Your task to perform on an android device: What's on my calendar today? Image 0: 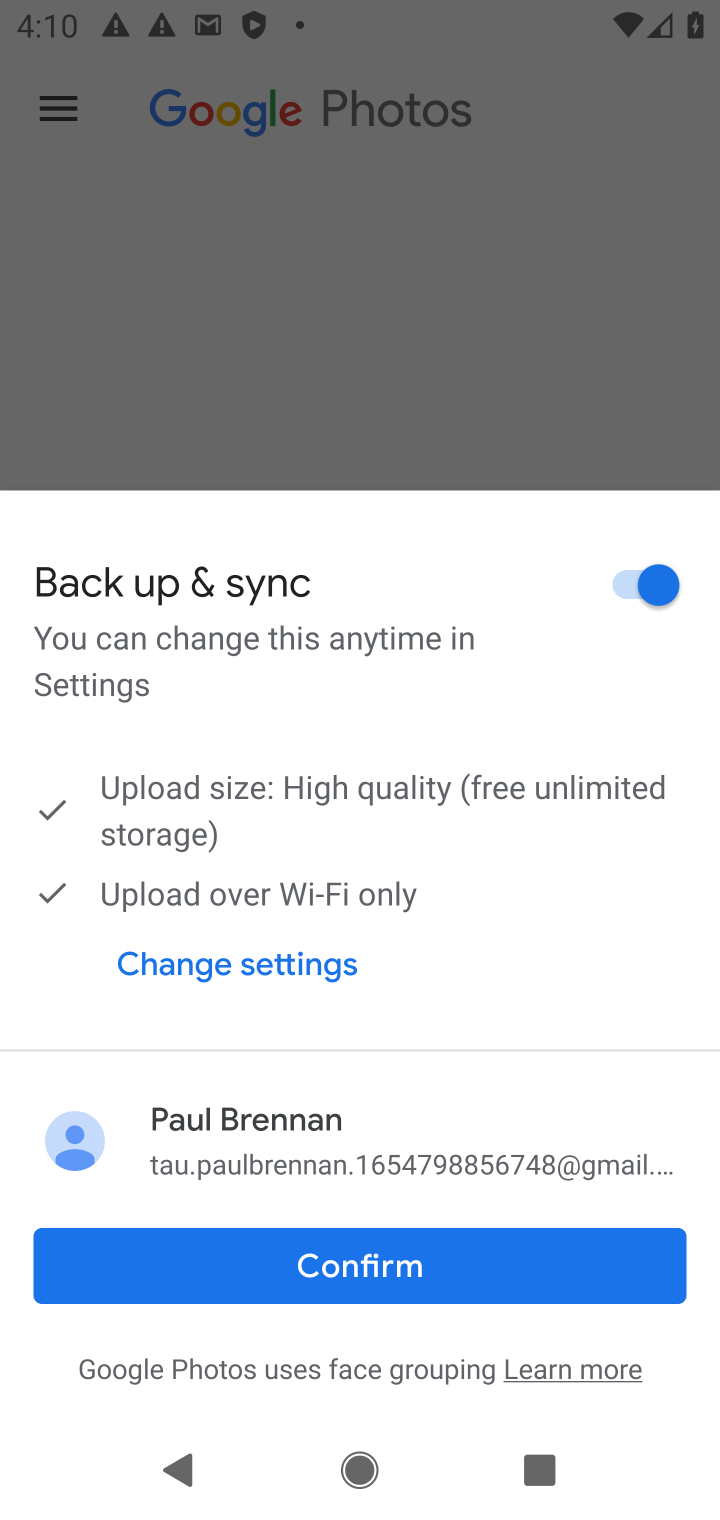
Step 0: press home button
Your task to perform on an android device: What's on my calendar today? Image 1: 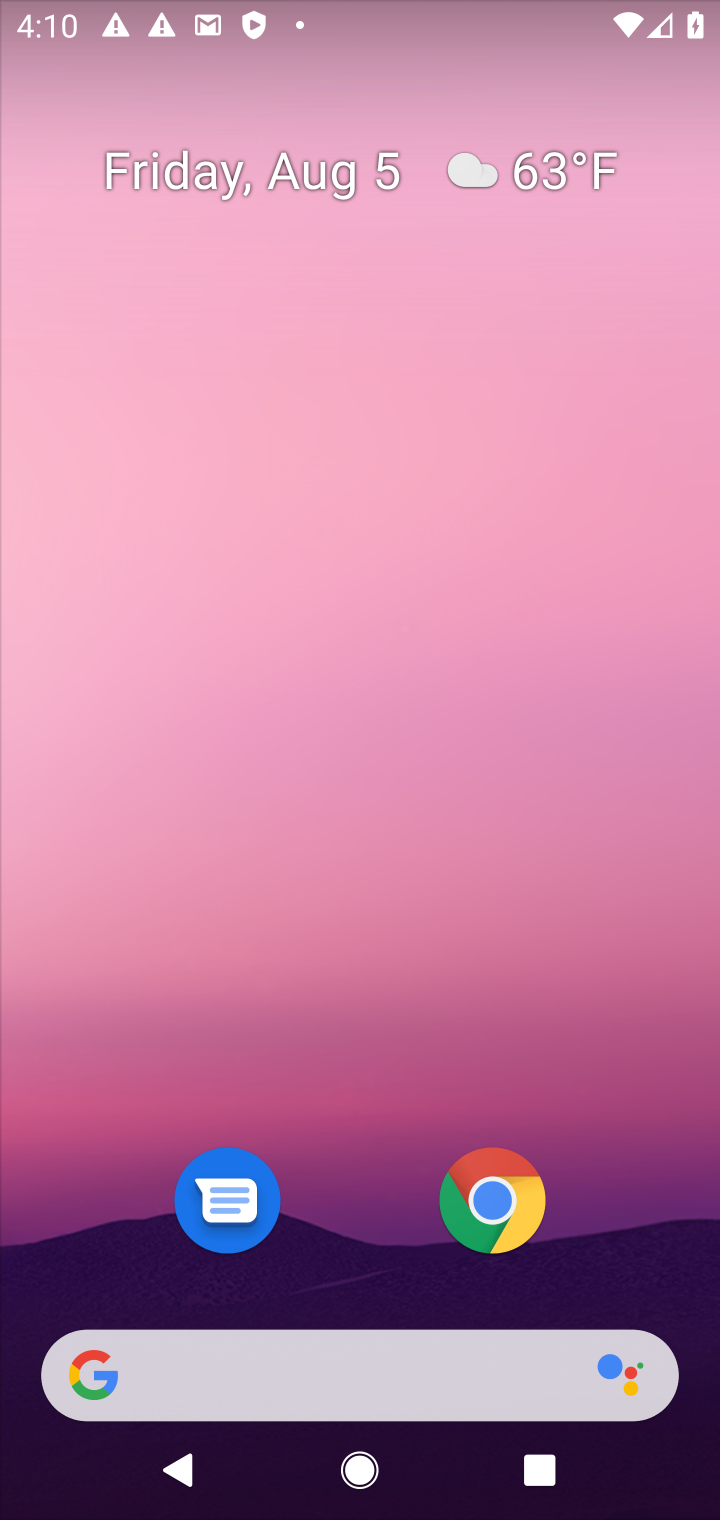
Step 1: drag from (631, 1279) to (488, 376)
Your task to perform on an android device: What's on my calendar today? Image 2: 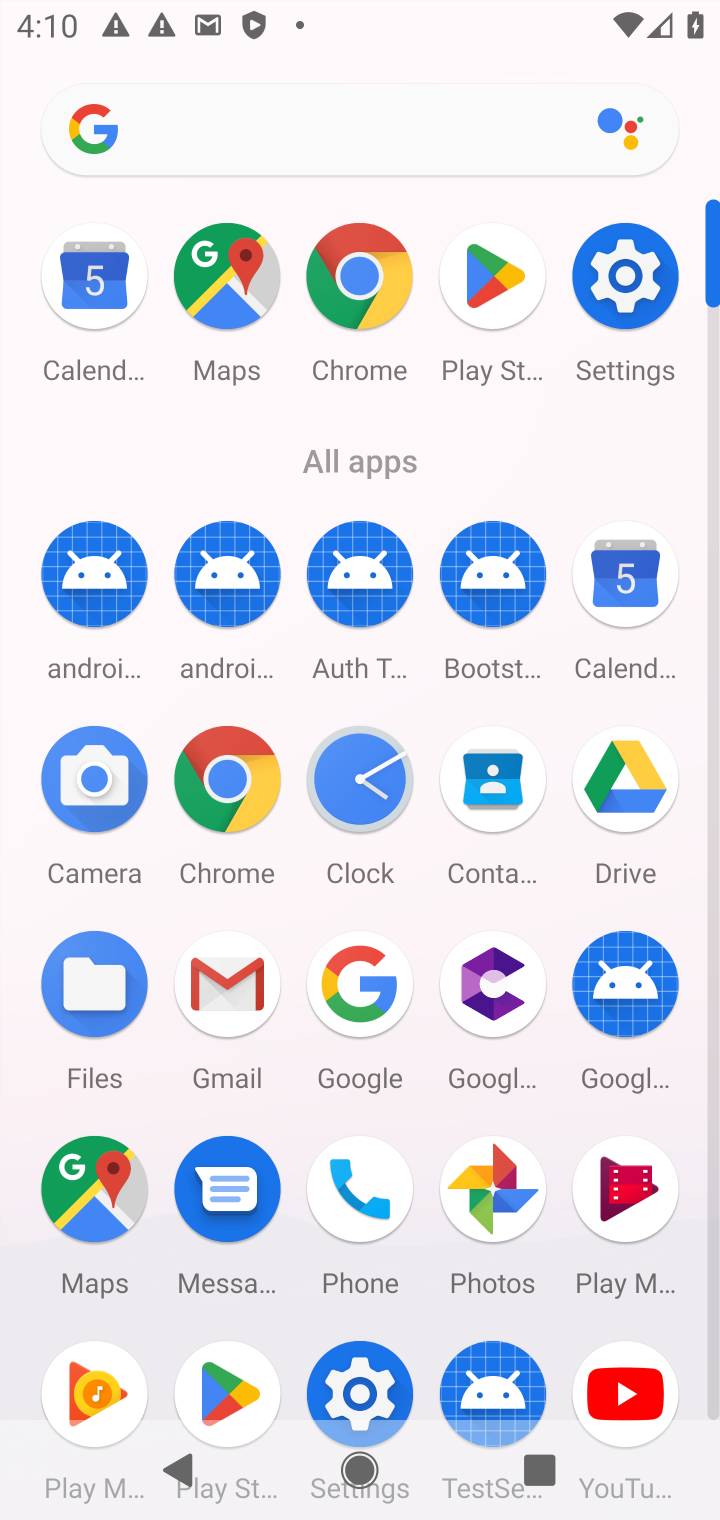
Step 2: click (627, 608)
Your task to perform on an android device: What's on my calendar today? Image 3: 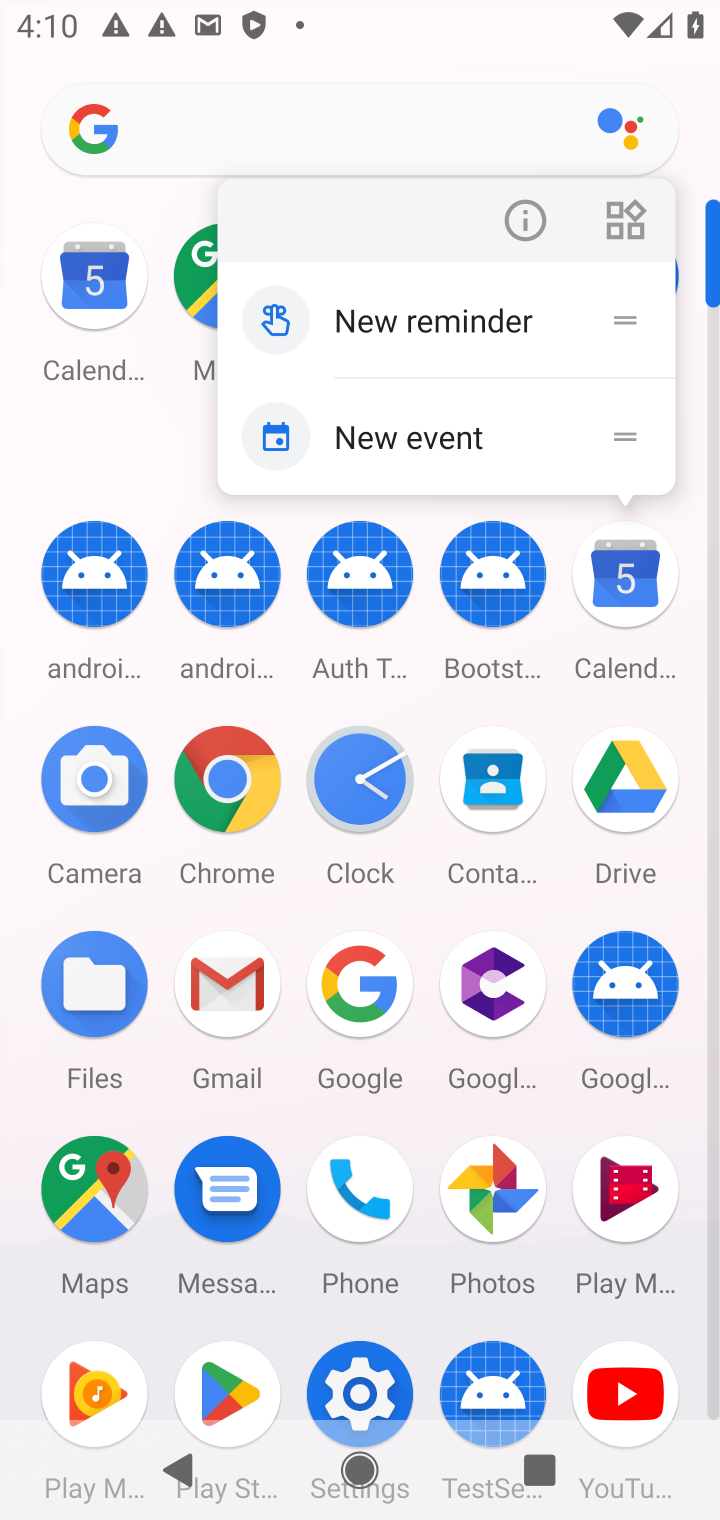
Step 3: click (635, 597)
Your task to perform on an android device: What's on my calendar today? Image 4: 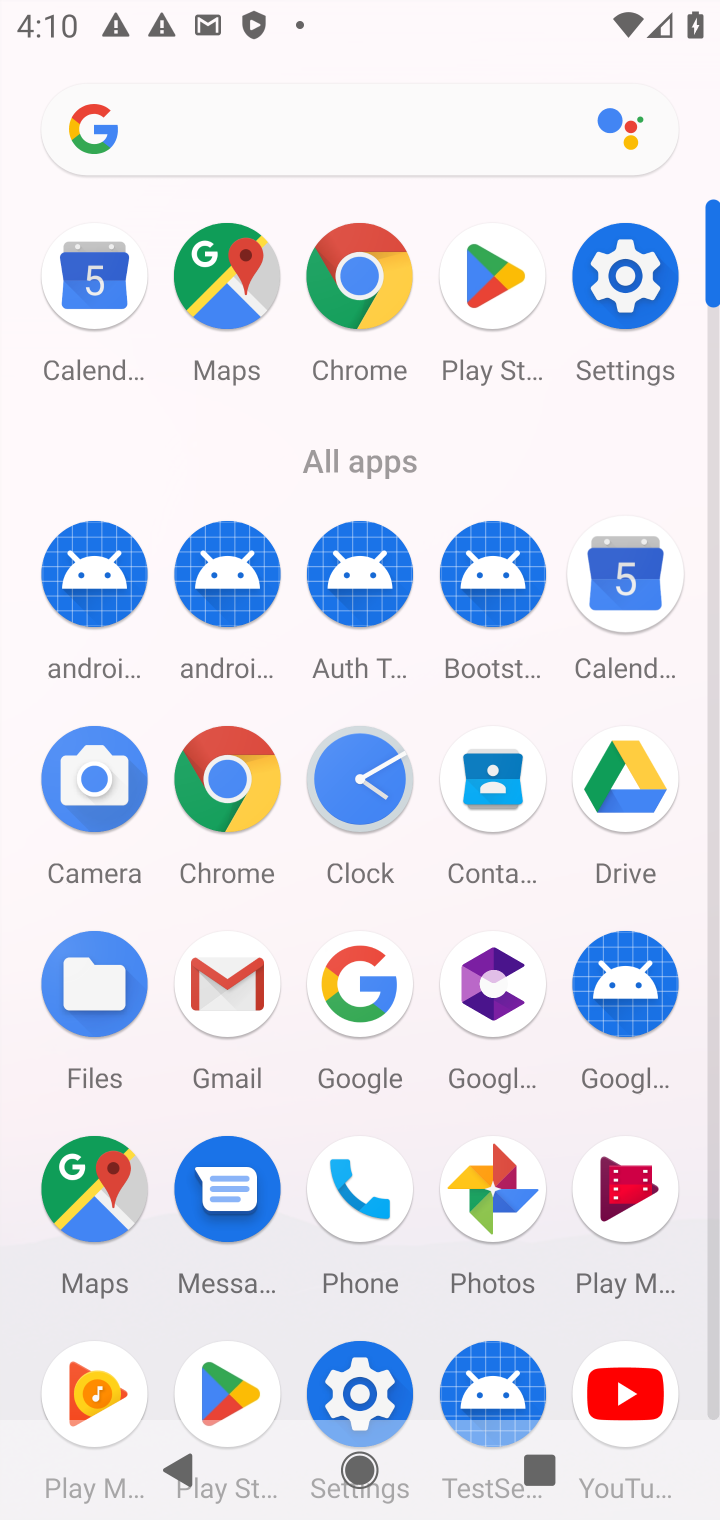
Step 4: click (615, 589)
Your task to perform on an android device: What's on my calendar today? Image 5: 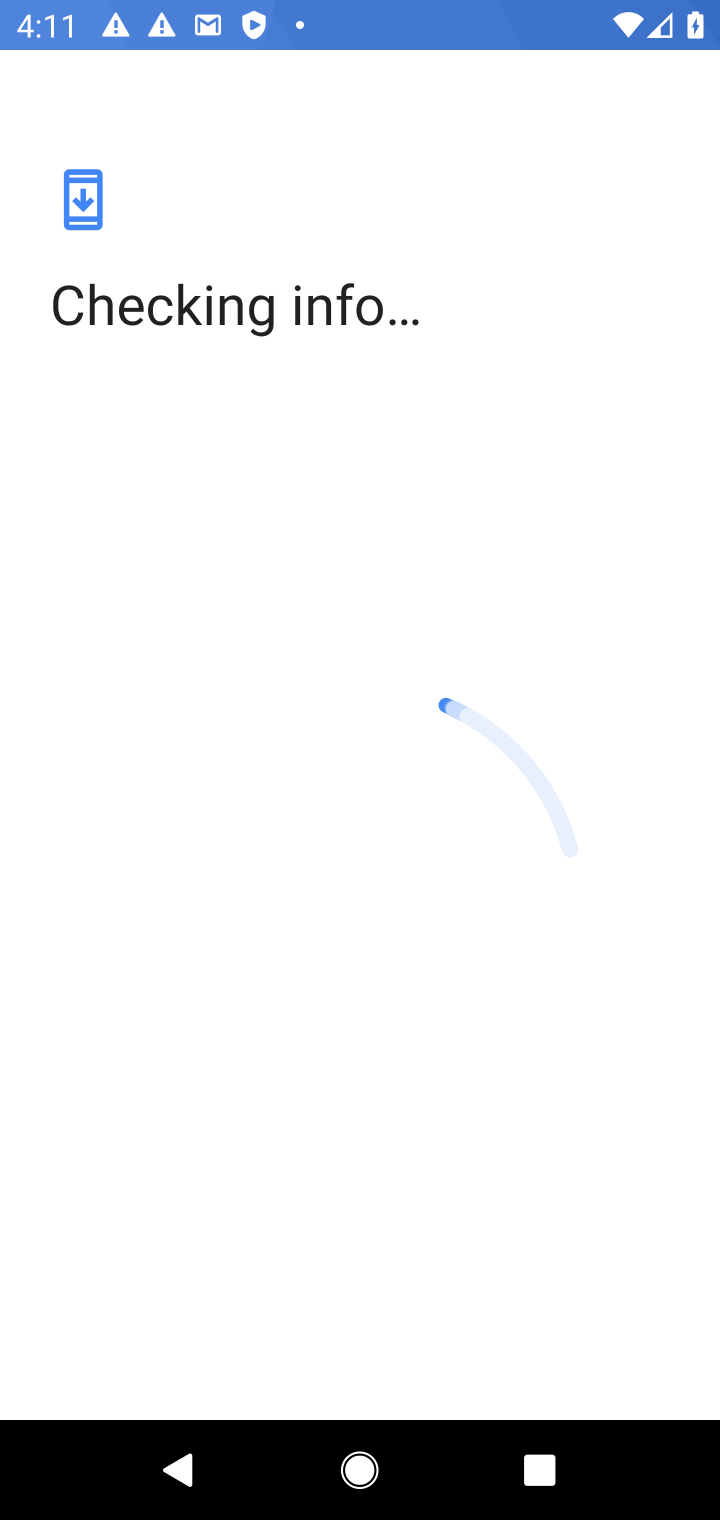
Step 5: task complete